Your task to perform on an android device: turn off smart reply in the gmail app Image 0: 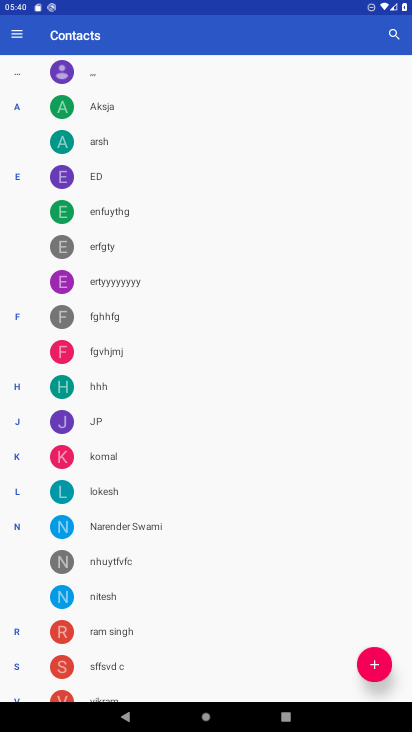
Step 0: press home button
Your task to perform on an android device: turn off smart reply in the gmail app Image 1: 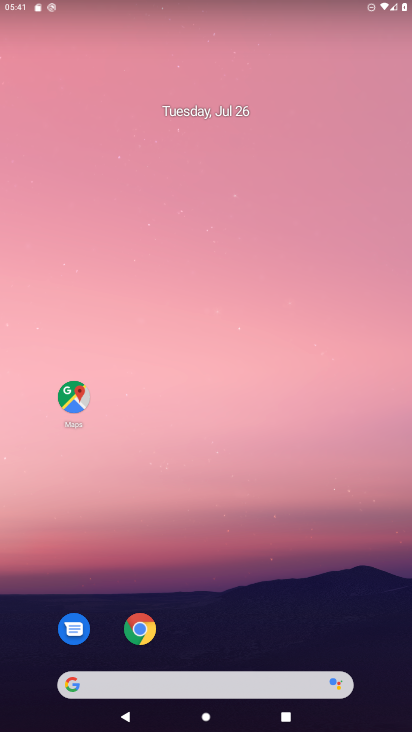
Step 1: drag from (198, 582) to (198, 122)
Your task to perform on an android device: turn off smart reply in the gmail app Image 2: 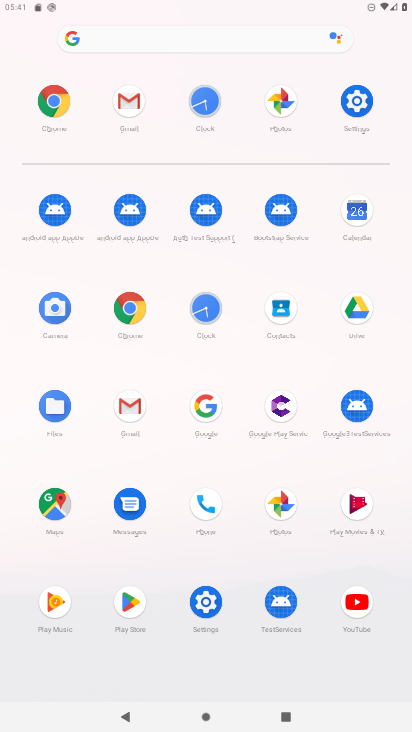
Step 2: click (124, 101)
Your task to perform on an android device: turn off smart reply in the gmail app Image 3: 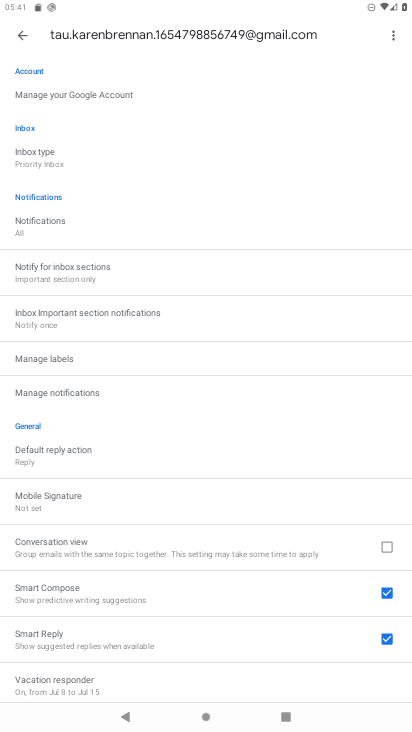
Step 3: click (377, 638)
Your task to perform on an android device: turn off smart reply in the gmail app Image 4: 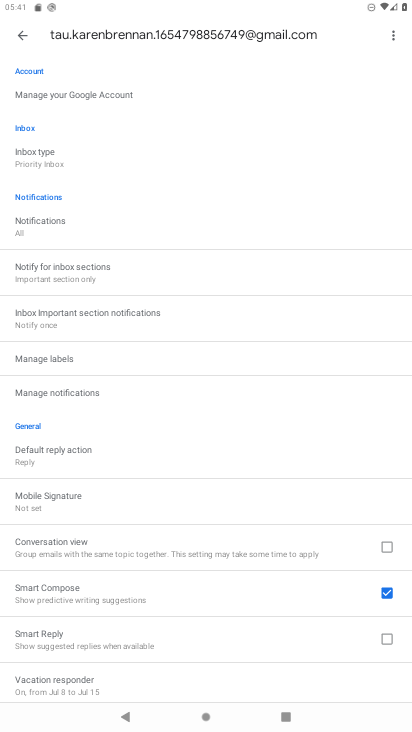
Step 4: task complete